Your task to perform on an android device: check data usage Image 0: 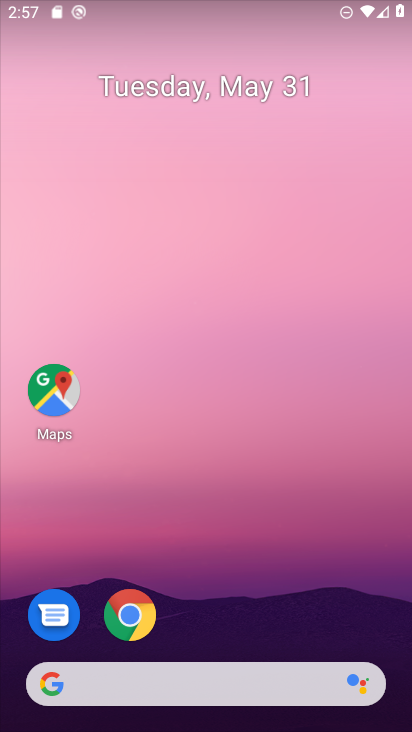
Step 0: drag from (245, 693) to (195, 52)
Your task to perform on an android device: check data usage Image 1: 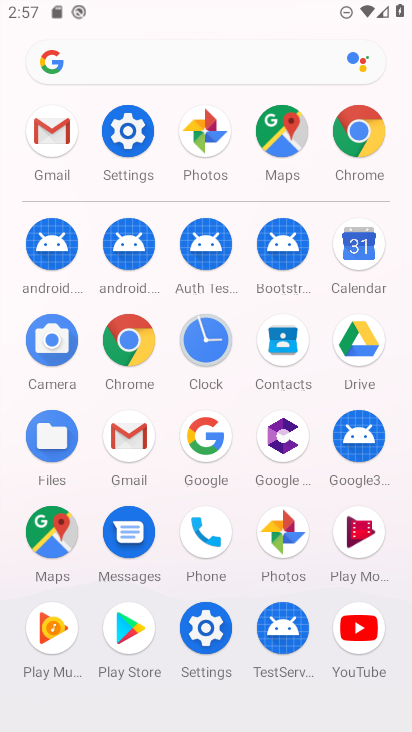
Step 1: click (121, 130)
Your task to perform on an android device: check data usage Image 2: 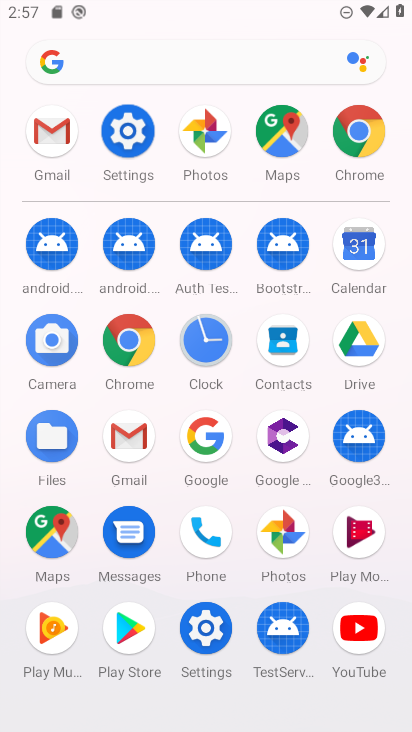
Step 2: click (128, 127)
Your task to perform on an android device: check data usage Image 3: 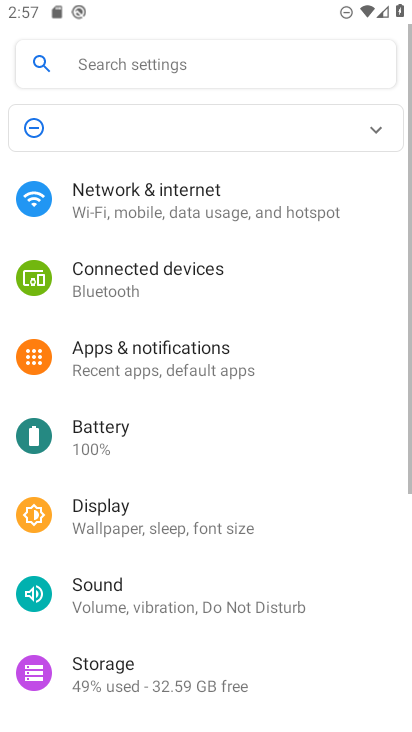
Step 3: click (128, 125)
Your task to perform on an android device: check data usage Image 4: 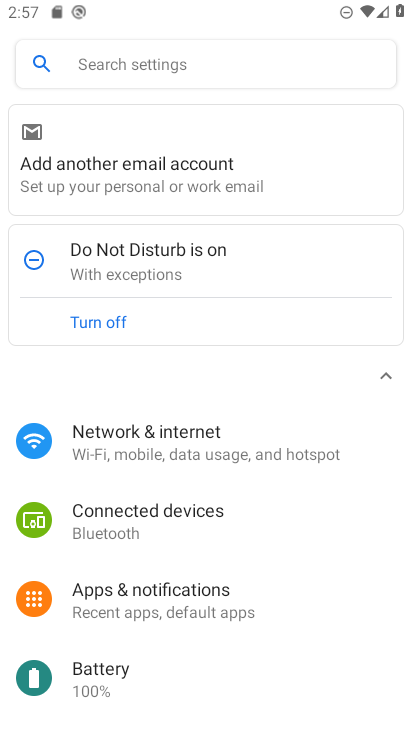
Step 4: click (161, 438)
Your task to perform on an android device: check data usage Image 5: 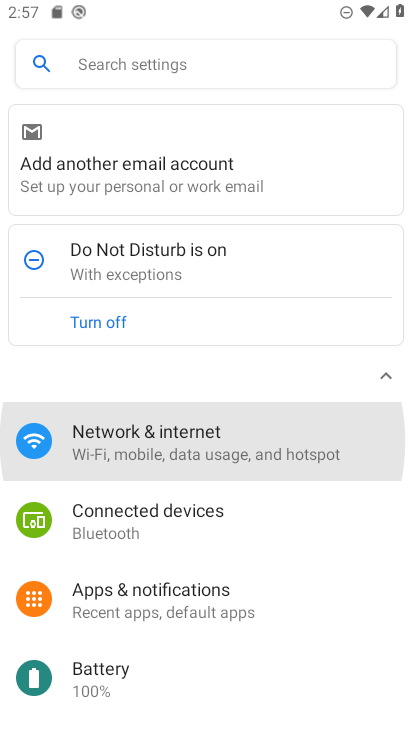
Step 5: click (161, 439)
Your task to perform on an android device: check data usage Image 6: 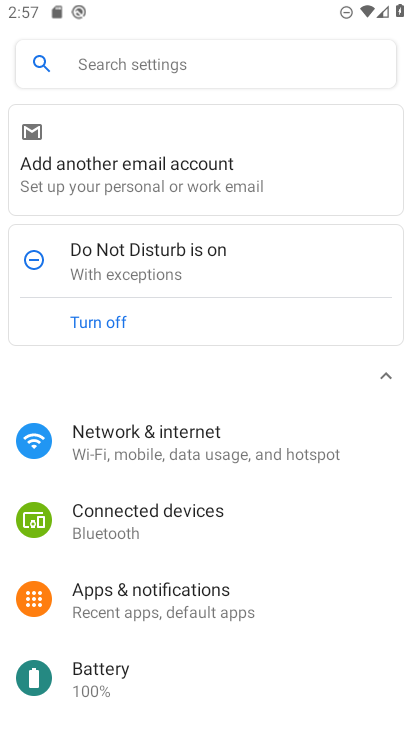
Step 6: click (161, 439)
Your task to perform on an android device: check data usage Image 7: 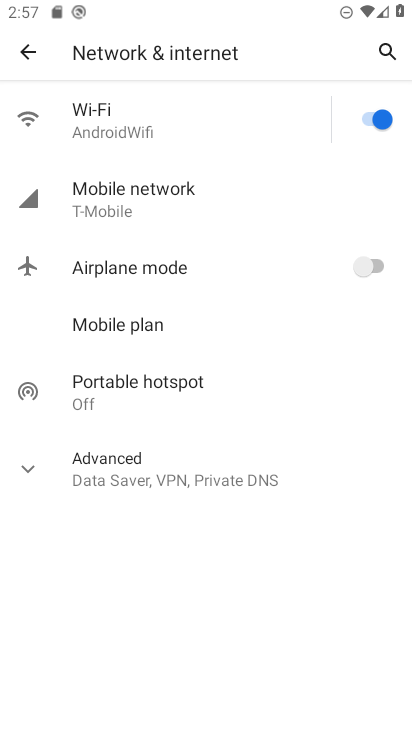
Step 7: click (111, 201)
Your task to perform on an android device: check data usage Image 8: 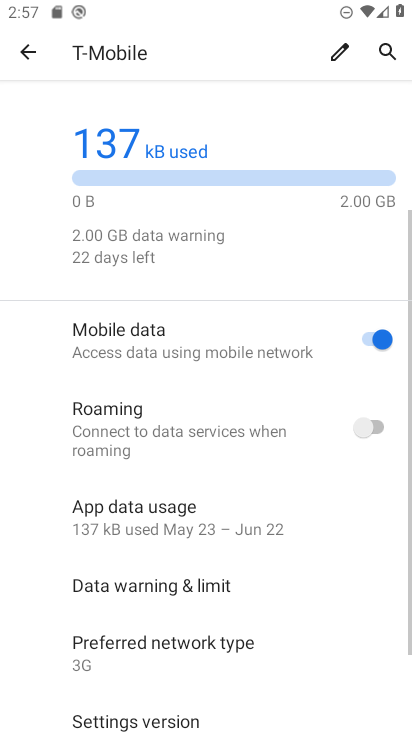
Step 8: drag from (136, 465) to (124, 111)
Your task to perform on an android device: check data usage Image 9: 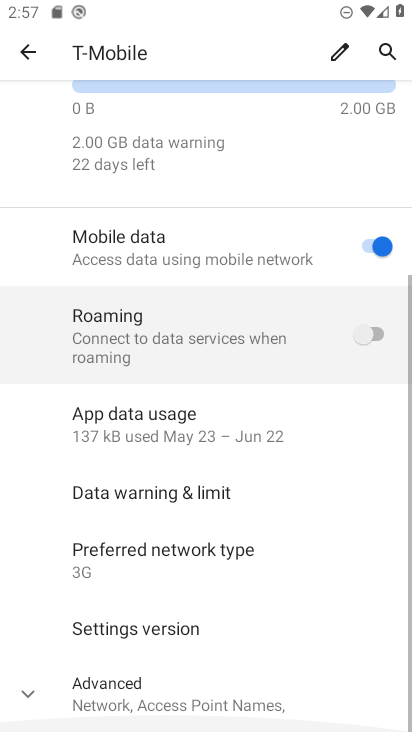
Step 9: drag from (164, 436) to (111, 158)
Your task to perform on an android device: check data usage Image 10: 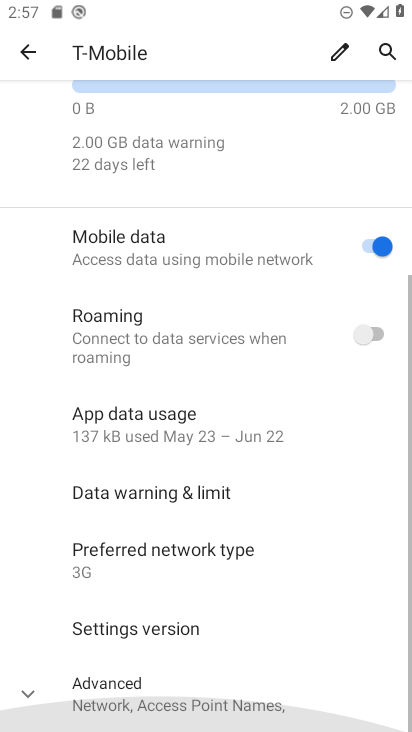
Step 10: drag from (156, 523) to (145, 303)
Your task to perform on an android device: check data usage Image 11: 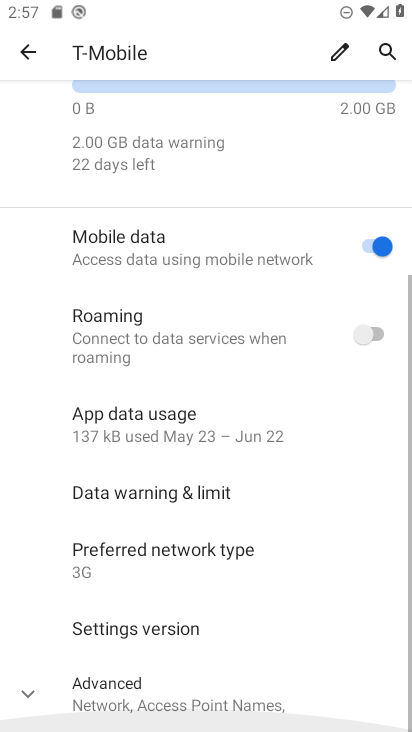
Step 11: drag from (155, 444) to (155, 151)
Your task to perform on an android device: check data usage Image 12: 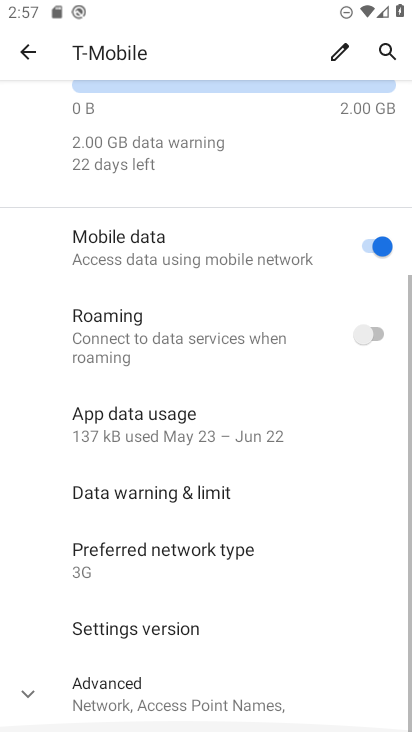
Step 12: click (164, 136)
Your task to perform on an android device: check data usage Image 13: 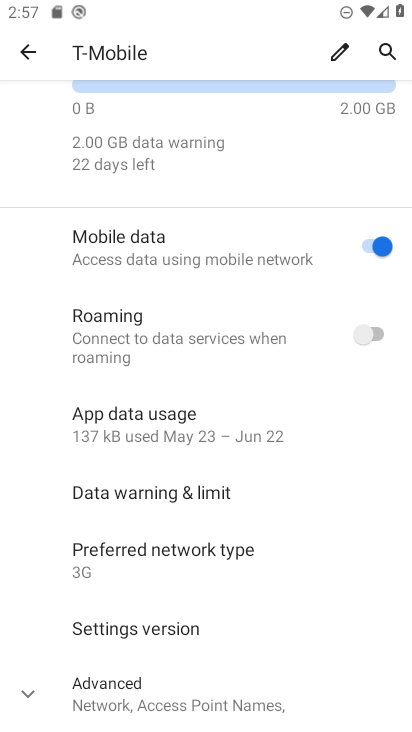
Step 13: task complete